Your task to perform on an android device: toggle sleep mode Image 0: 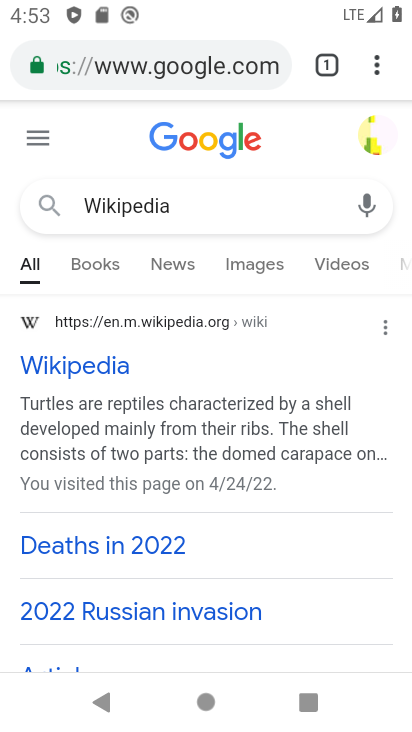
Step 0: press home button
Your task to perform on an android device: toggle sleep mode Image 1: 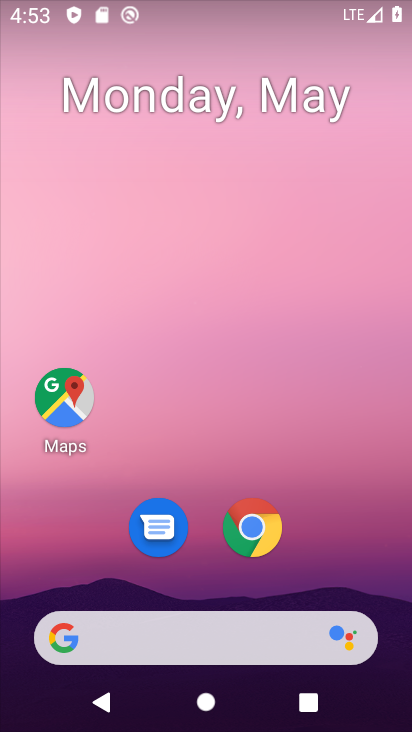
Step 1: drag from (380, 533) to (334, 87)
Your task to perform on an android device: toggle sleep mode Image 2: 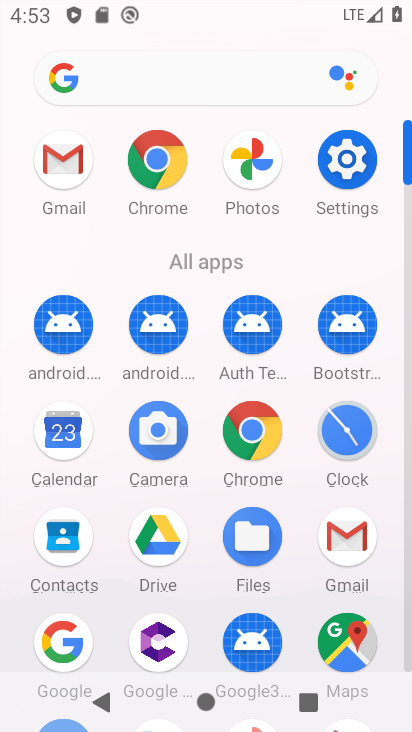
Step 2: click (338, 173)
Your task to perform on an android device: toggle sleep mode Image 3: 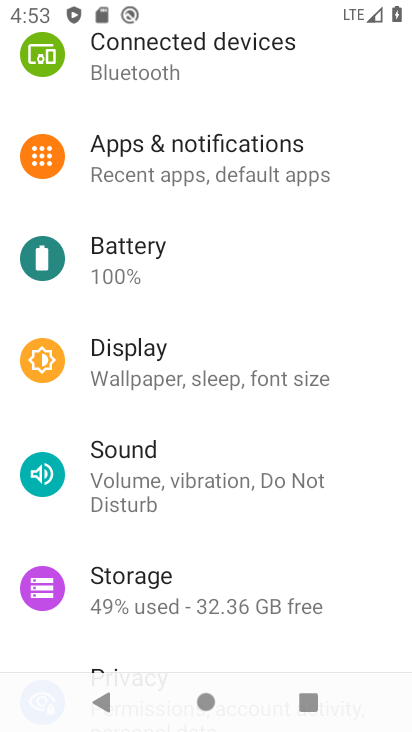
Step 3: click (127, 373)
Your task to perform on an android device: toggle sleep mode Image 4: 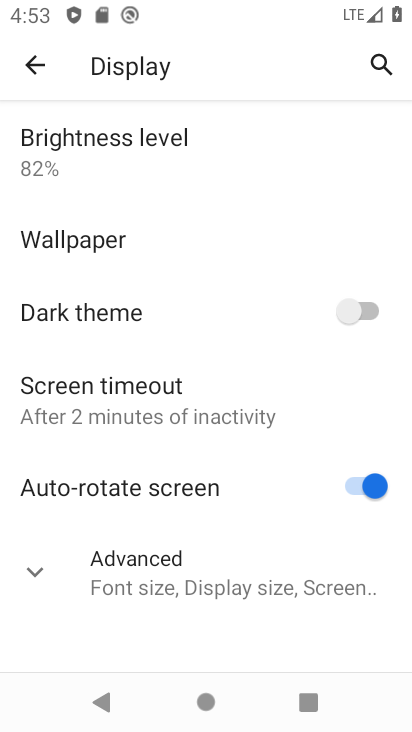
Step 4: click (101, 412)
Your task to perform on an android device: toggle sleep mode Image 5: 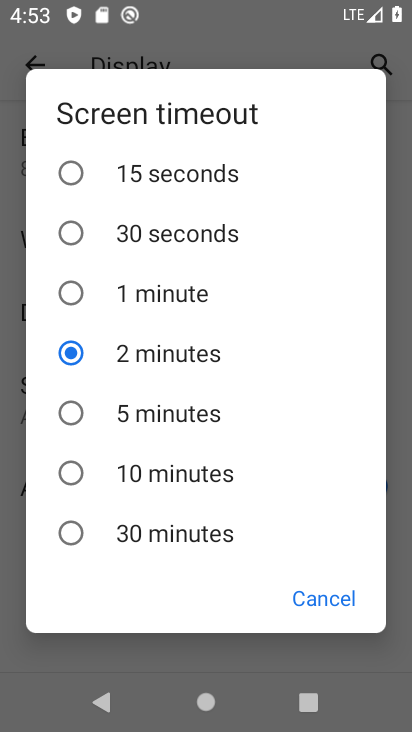
Step 5: click (73, 411)
Your task to perform on an android device: toggle sleep mode Image 6: 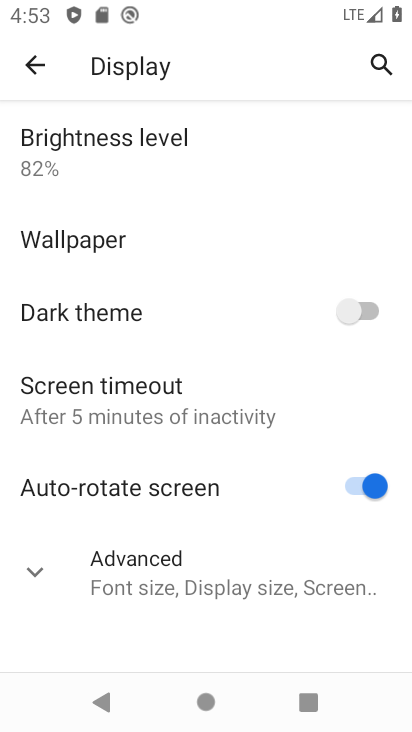
Step 6: task complete